Your task to perform on an android device: turn off location Image 0: 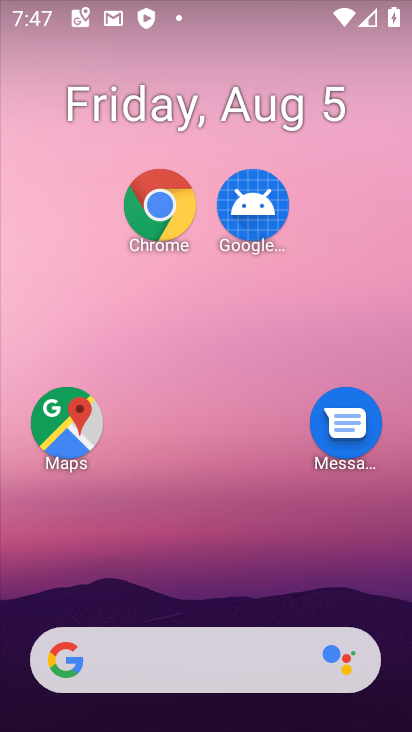
Step 0: drag from (251, 558) to (279, 31)
Your task to perform on an android device: turn off location Image 1: 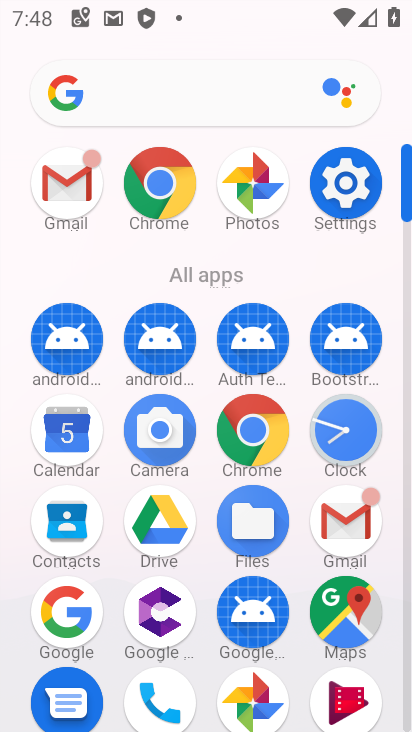
Step 1: click (340, 151)
Your task to perform on an android device: turn off location Image 2: 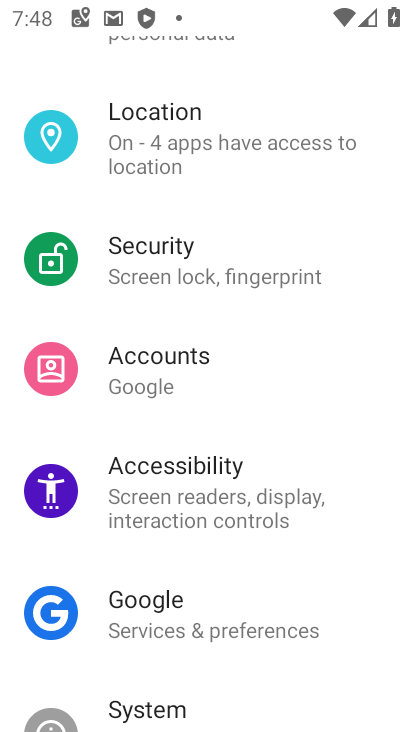
Step 2: click (143, 150)
Your task to perform on an android device: turn off location Image 3: 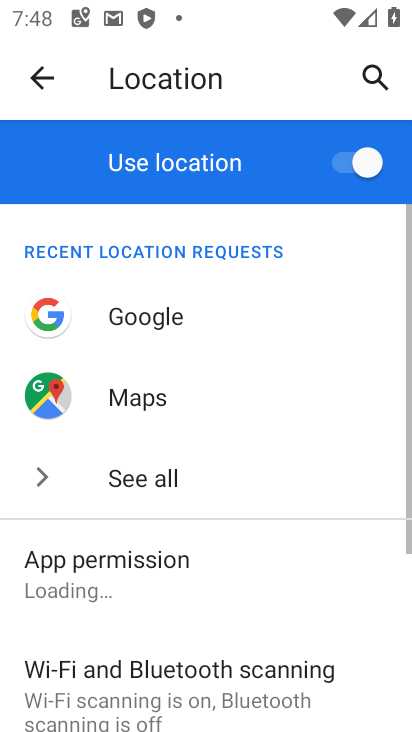
Step 3: click (330, 157)
Your task to perform on an android device: turn off location Image 4: 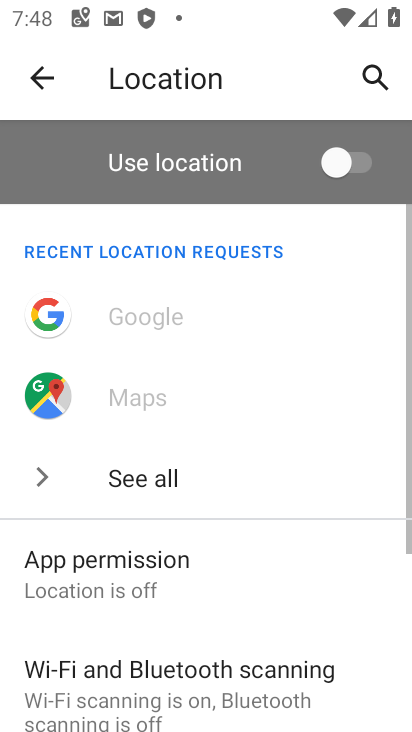
Step 4: task complete